Your task to perform on an android device: Open Google Chrome Image 0: 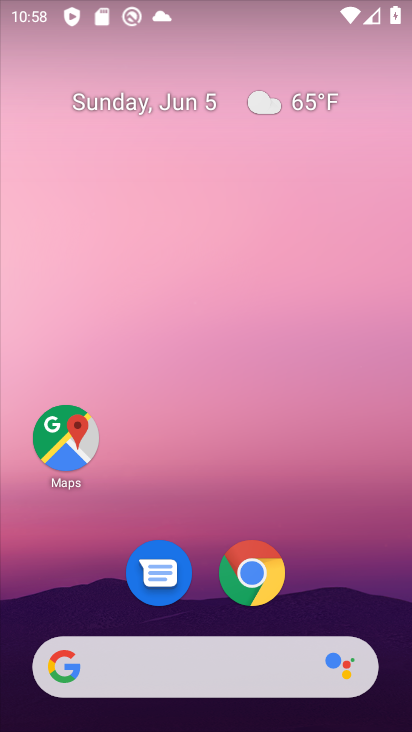
Step 0: click (281, 580)
Your task to perform on an android device: Open Google Chrome Image 1: 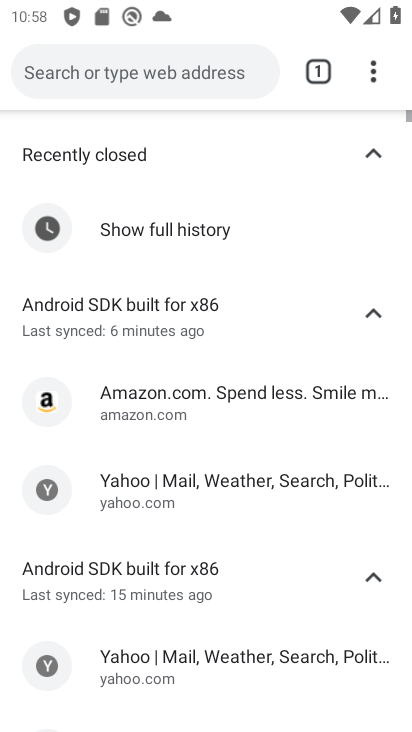
Step 1: task complete